Your task to perform on an android device: Show the shopping cart on target. Image 0: 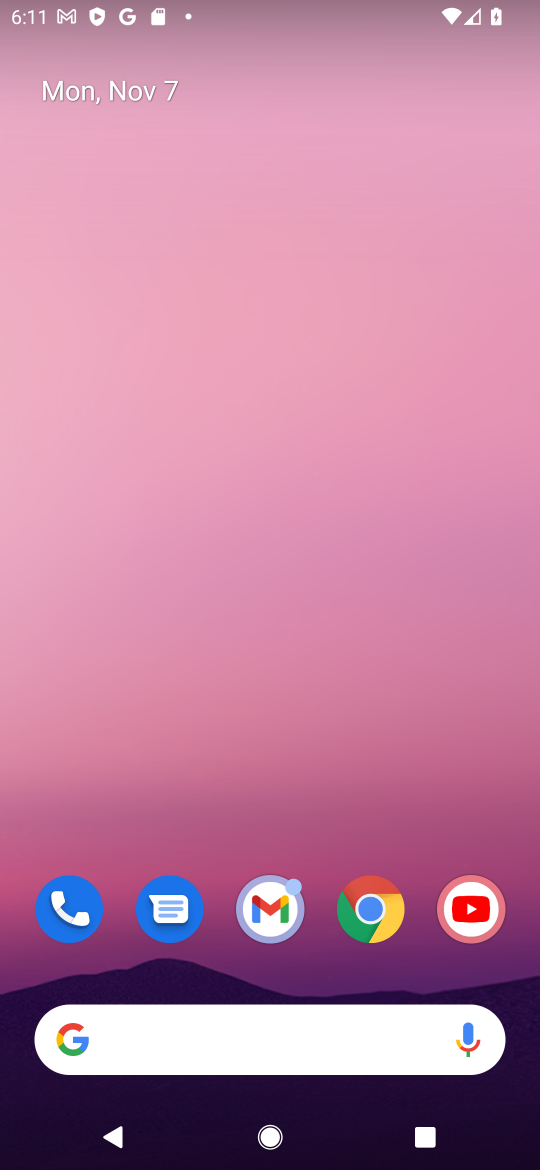
Step 0: click (376, 909)
Your task to perform on an android device: Show the shopping cart on target. Image 1: 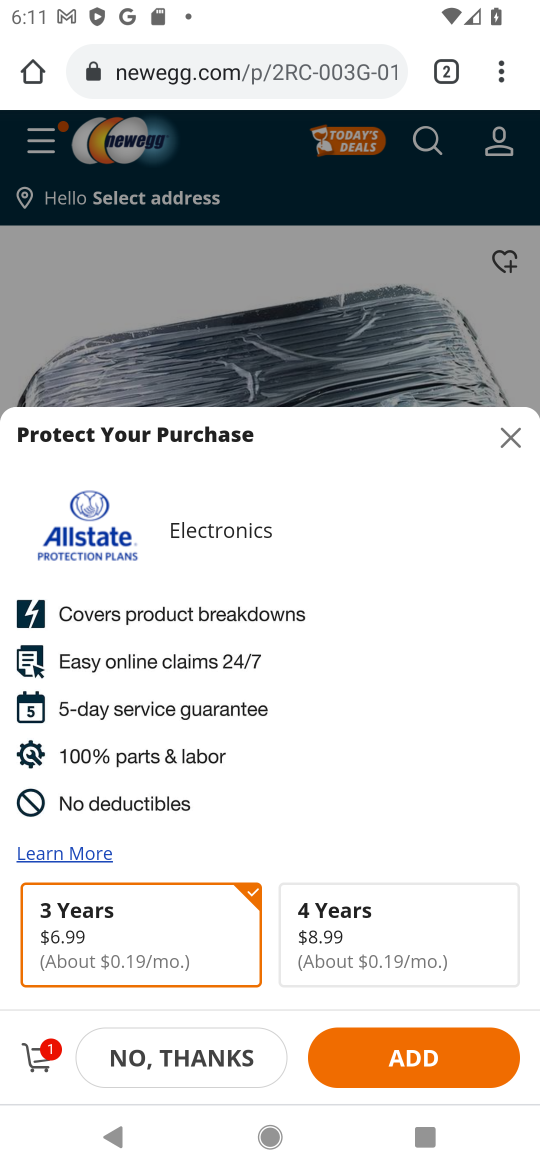
Step 1: click (447, 71)
Your task to perform on an android device: Show the shopping cart on target. Image 2: 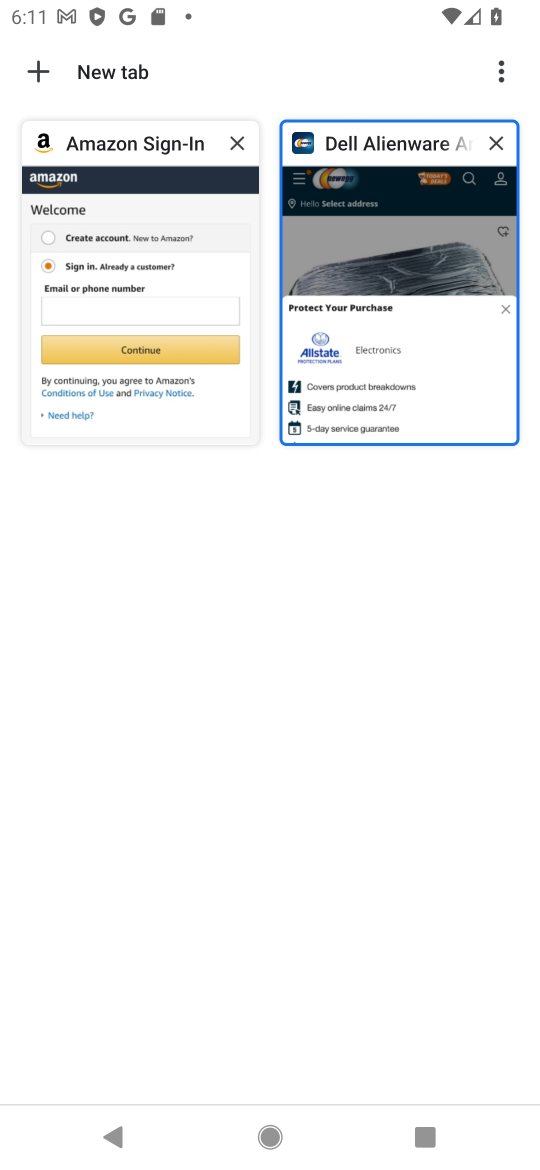
Step 2: click (35, 73)
Your task to perform on an android device: Show the shopping cart on target. Image 3: 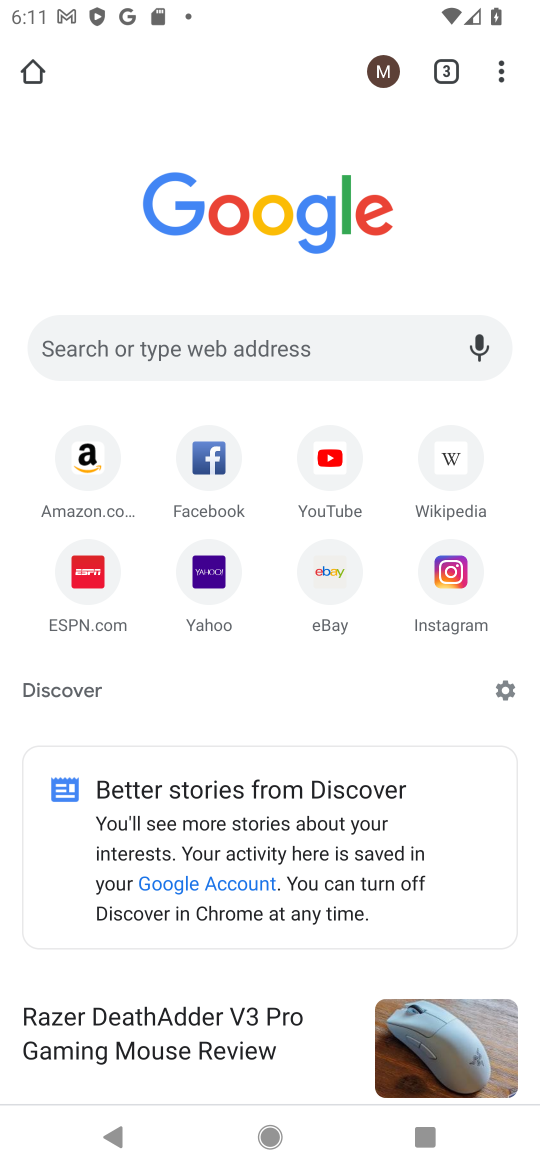
Step 3: click (155, 344)
Your task to perform on an android device: Show the shopping cart on target. Image 4: 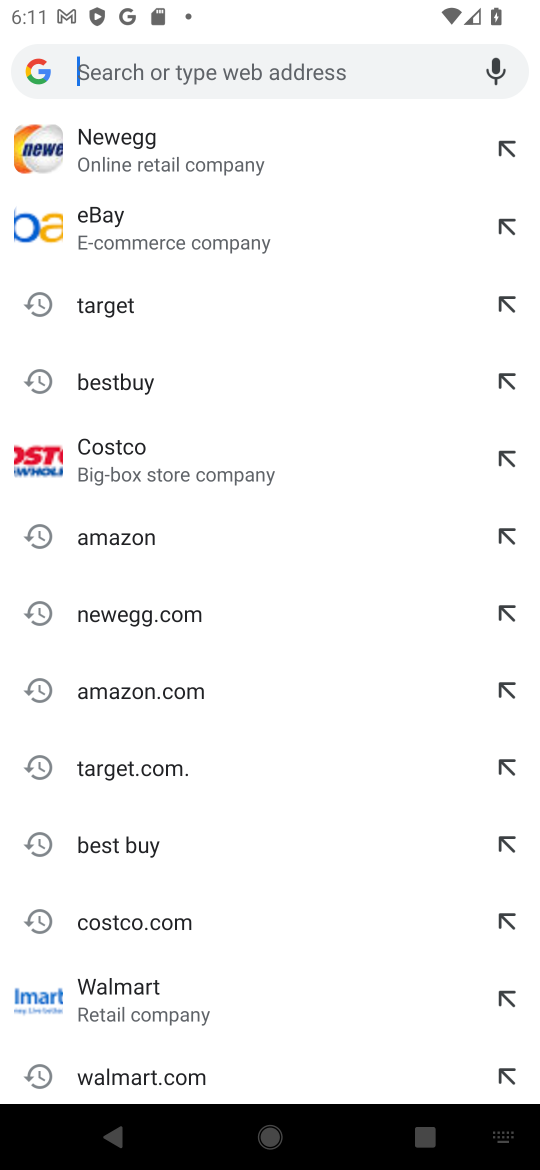
Step 4: click (117, 310)
Your task to perform on an android device: Show the shopping cart on target. Image 5: 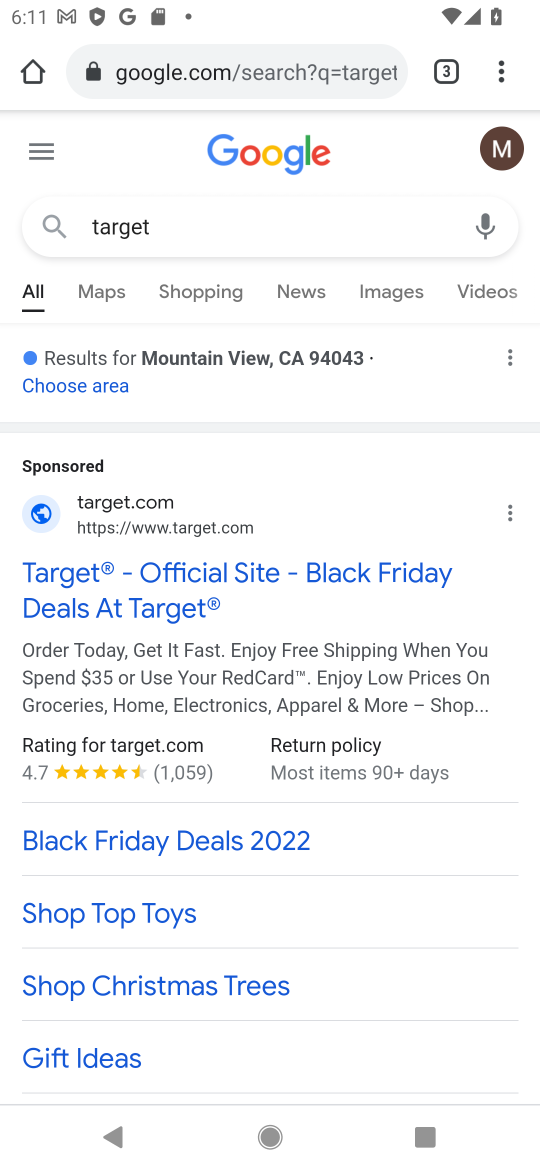
Step 5: drag from (164, 765) to (352, 160)
Your task to perform on an android device: Show the shopping cart on target. Image 6: 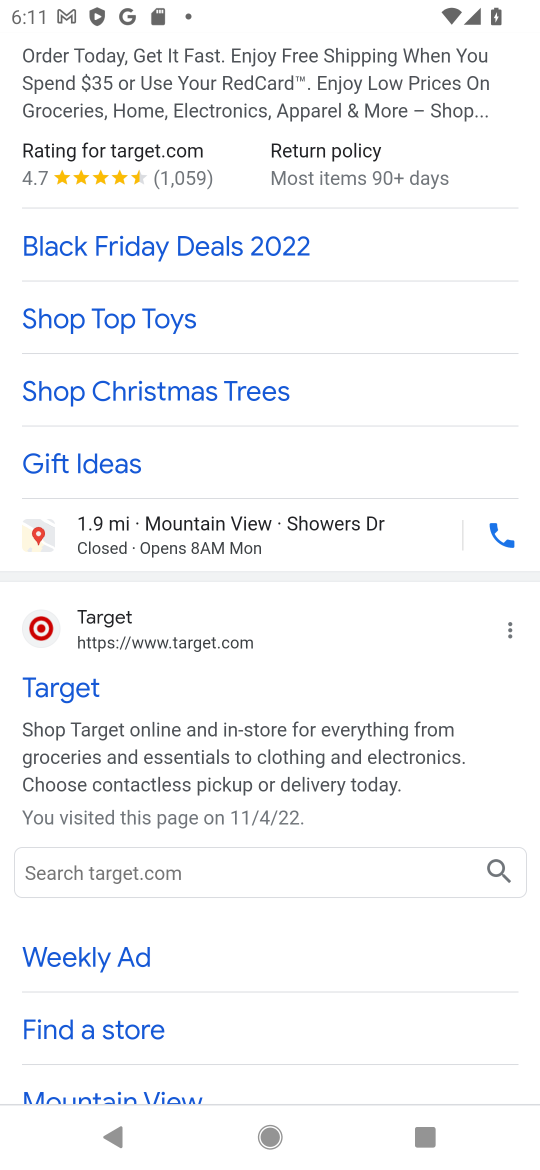
Step 6: click (76, 686)
Your task to perform on an android device: Show the shopping cart on target. Image 7: 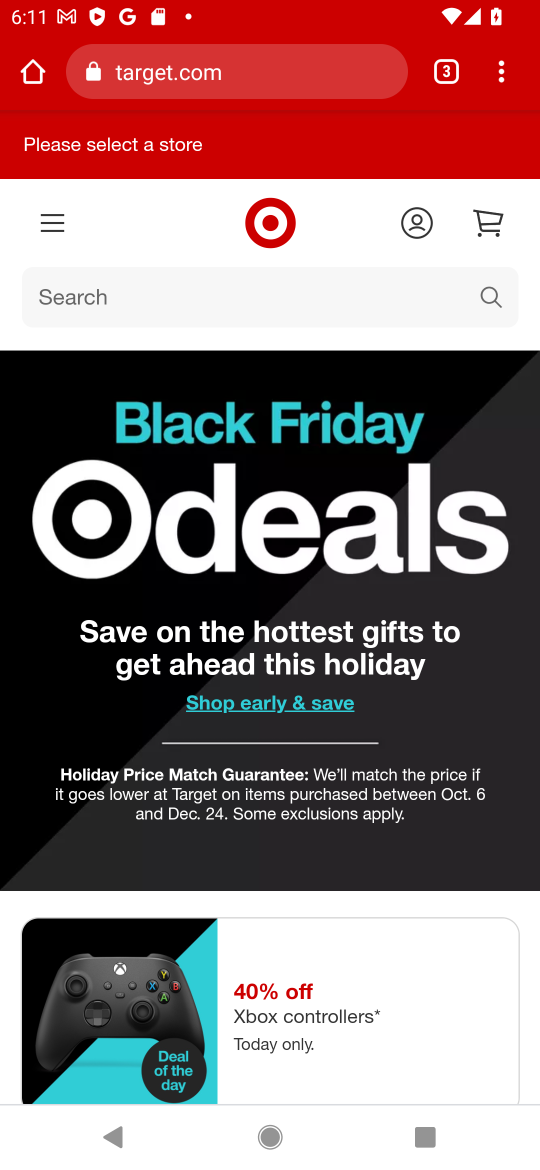
Step 7: click (480, 228)
Your task to perform on an android device: Show the shopping cart on target. Image 8: 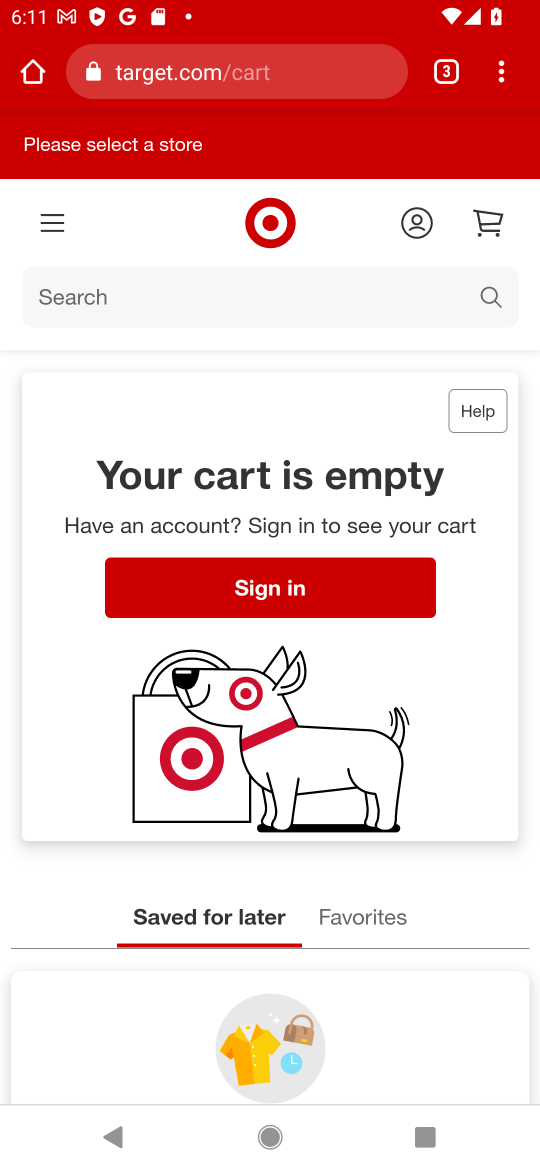
Step 8: task complete